Your task to perform on an android device: manage bookmarks in the chrome app Image 0: 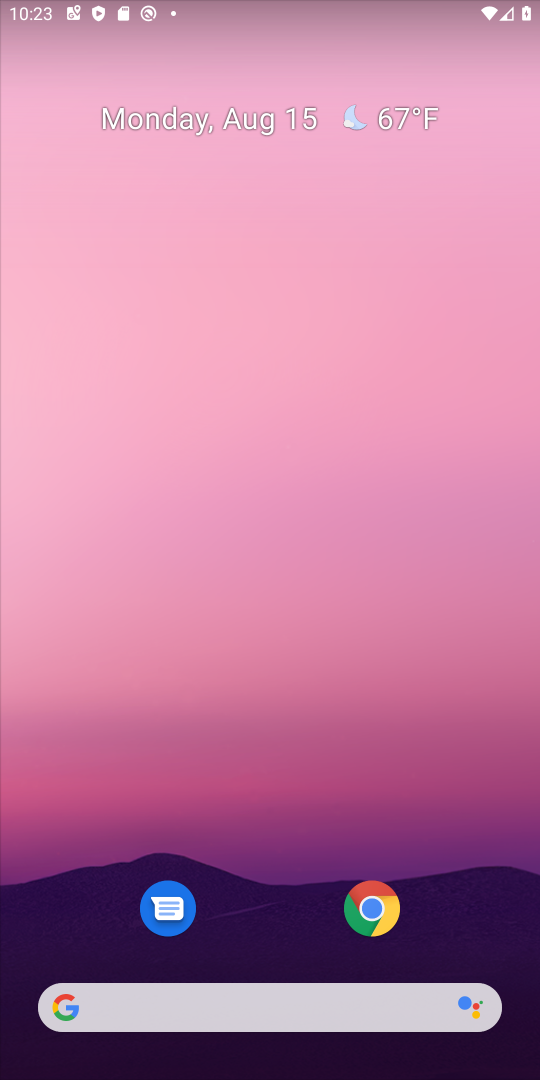
Step 0: click (388, 902)
Your task to perform on an android device: manage bookmarks in the chrome app Image 1: 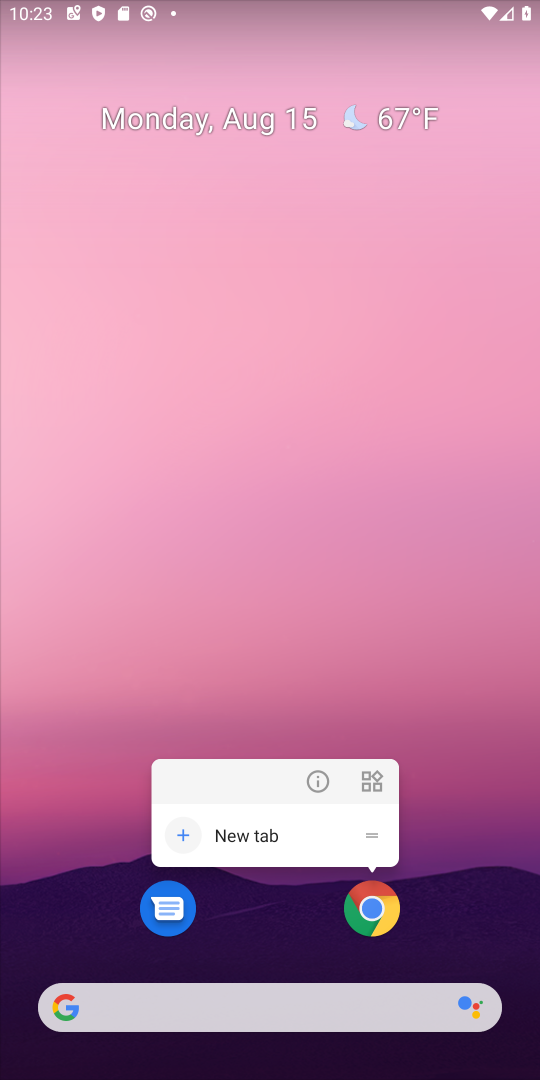
Step 1: click (388, 902)
Your task to perform on an android device: manage bookmarks in the chrome app Image 2: 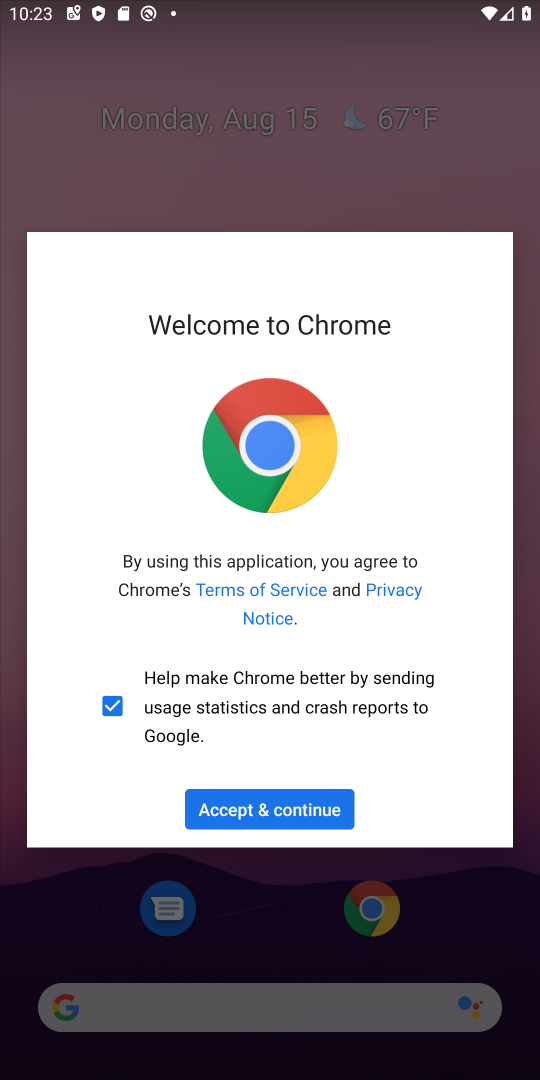
Step 2: click (289, 793)
Your task to perform on an android device: manage bookmarks in the chrome app Image 3: 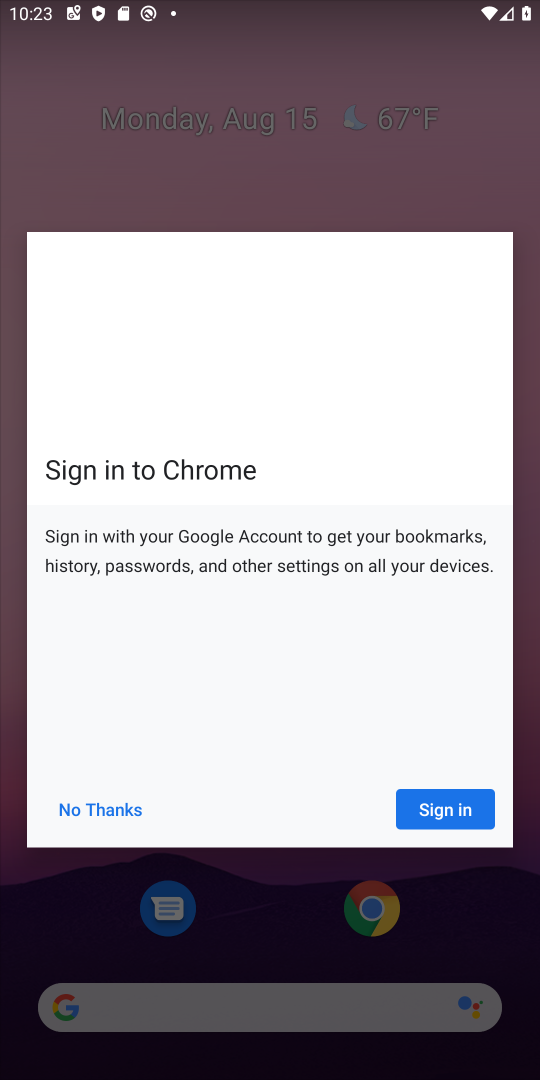
Step 3: click (269, 803)
Your task to perform on an android device: manage bookmarks in the chrome app Image 4: 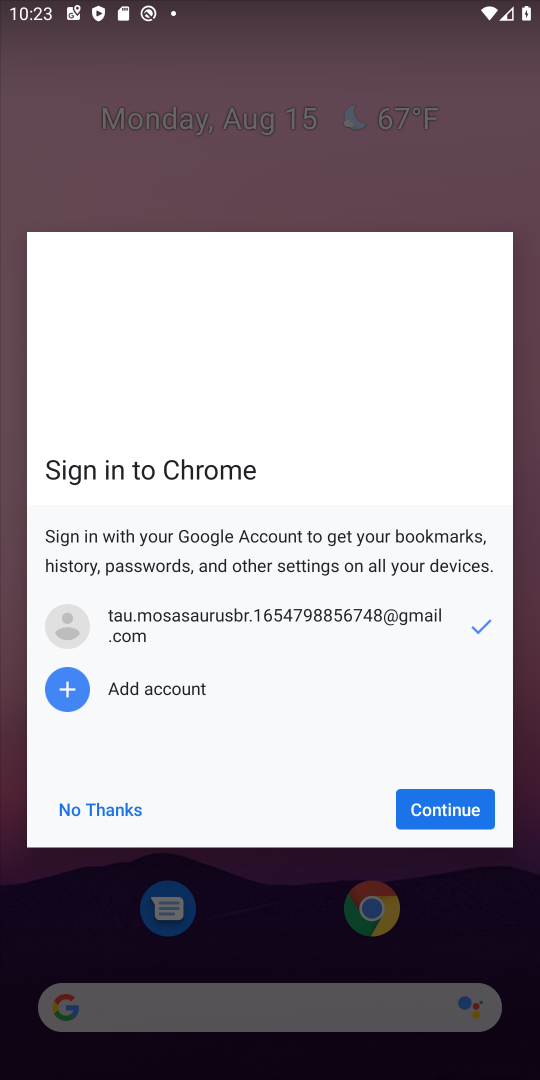
Step 4: click (478, 802)
Your task to perform on an android device: manage bookmarks in the chrome app Image 5: 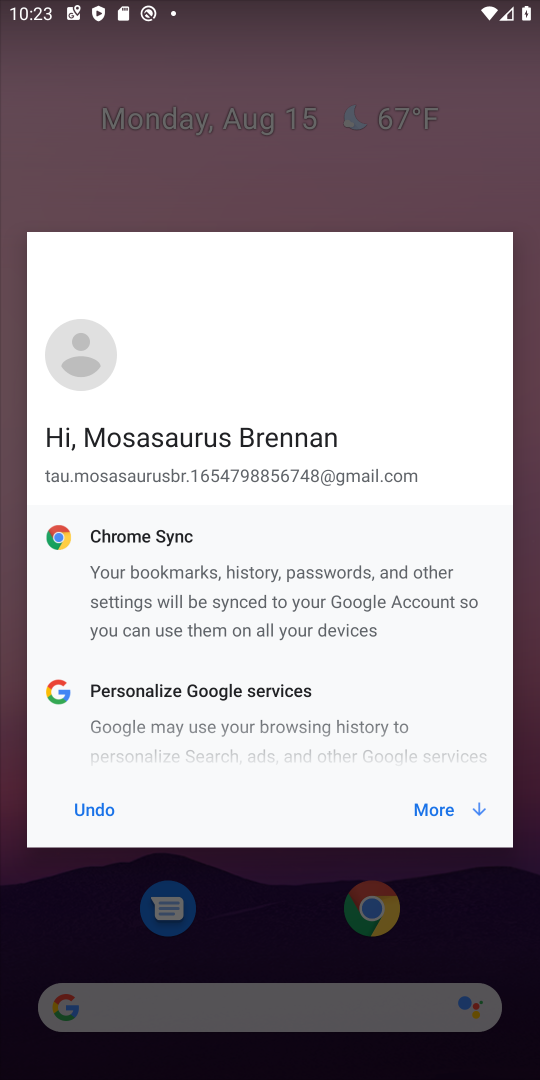
Step 5: click (426, 813)
Your task to perform on an android device: manage bookmarks in the chrome app Image 6: 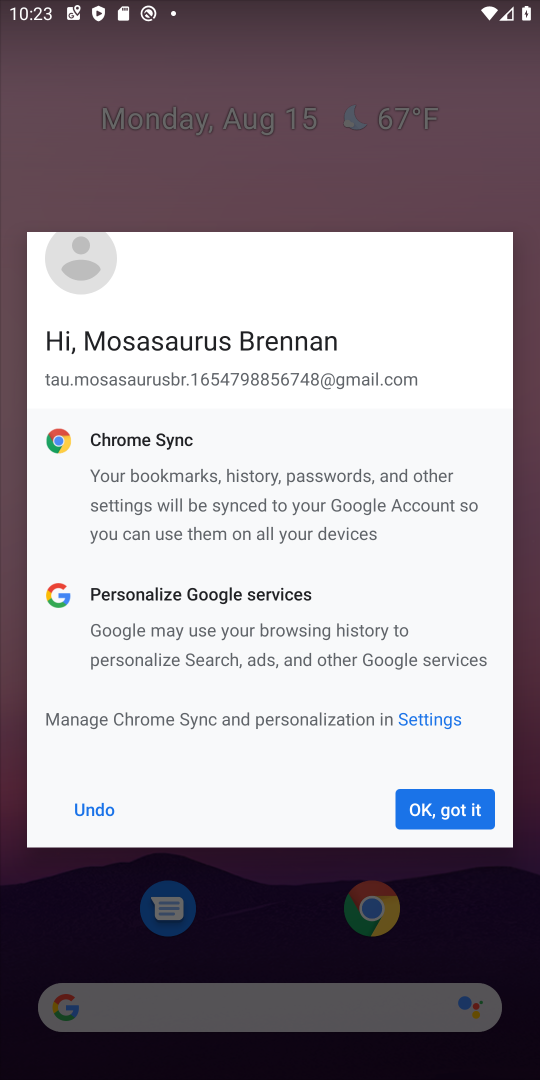
Step 6: click (426, 813)
Your task to perform on an android device: manage bookmarks in the chrome app Image 7: 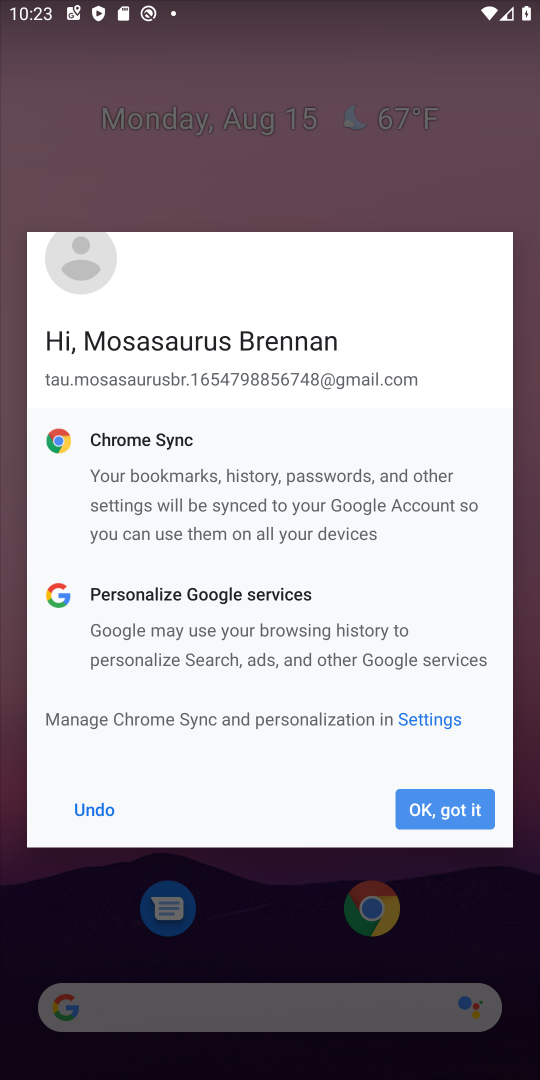
Step 7: click (426, 813)
Your task to perform on an android device: manage bookmarks in the chrome app Image 8: 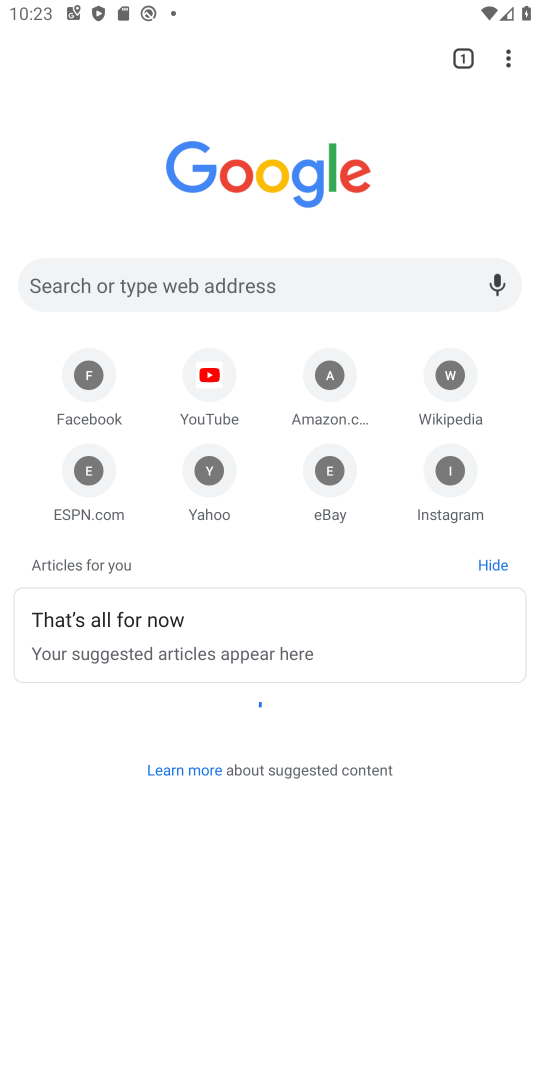
Step 8: click (512, 54)
Your task to perform on an android device: manage bookmarks in the chrome app Image 9: 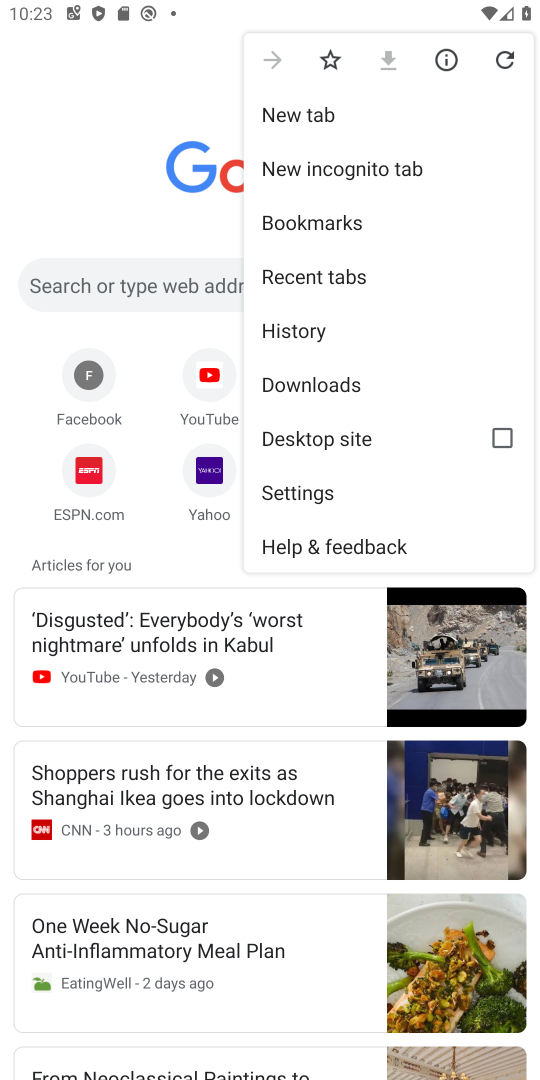
Step 9: click (300, 232)
Your task to perform on an android device: manage bookmarks in the chrome app Image 10: 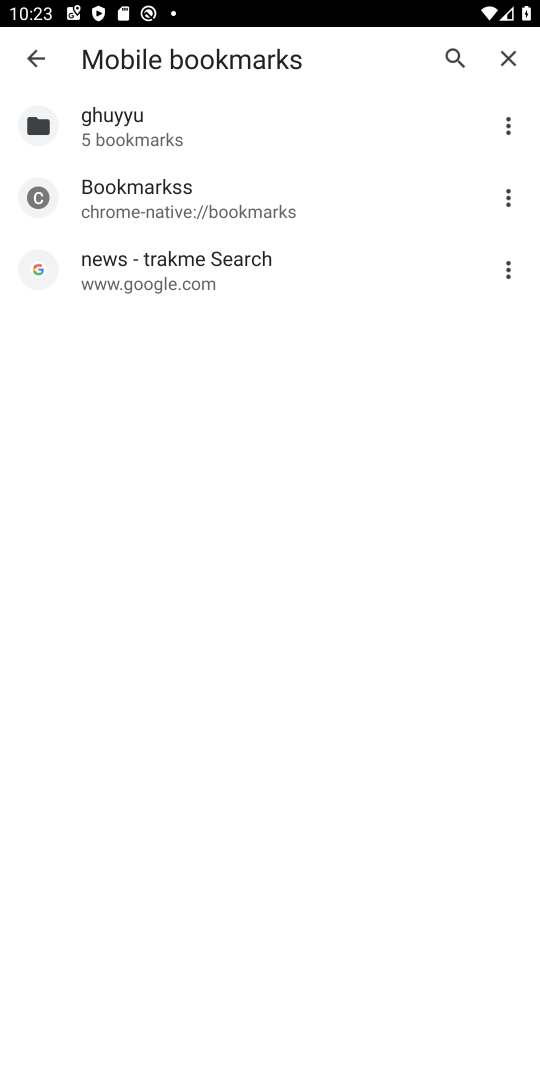
Step 10: click (300, 232)
Your task to perform on an android device: manage bookmarks in the chrome app Image 11: 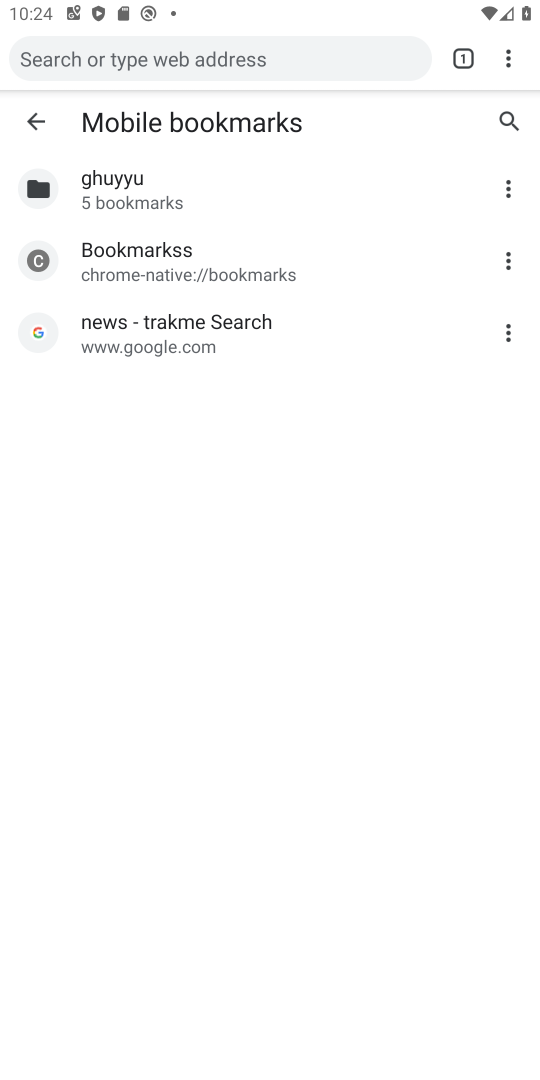
Step 11: click (221, 253)
Your task to perform on an android device: manage bookmarks in the chrome app Image 12: 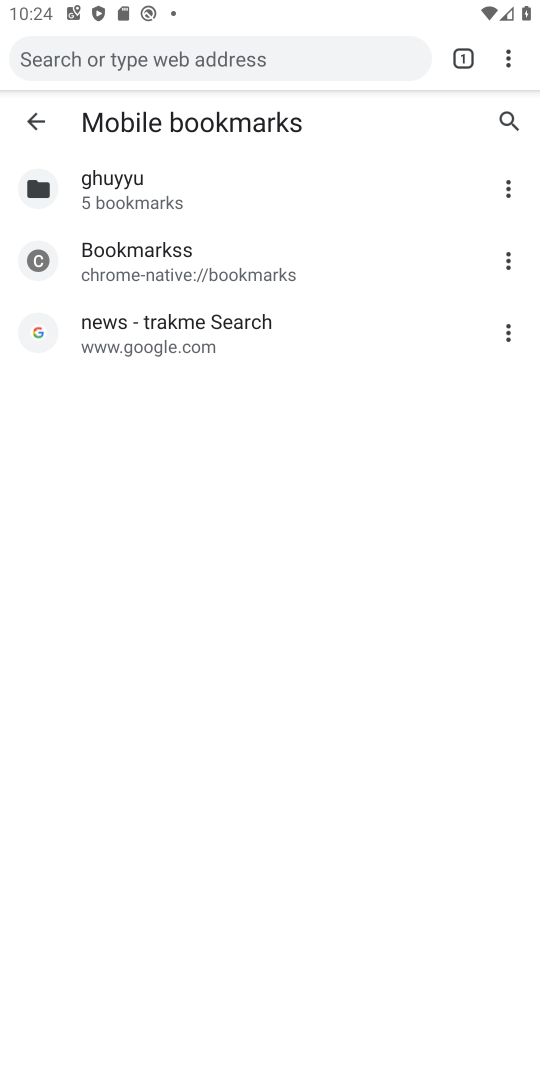
Step 12: click (209, 259)
Your task to perform on an android device: manage bookmarks in the chrome app Image 13: 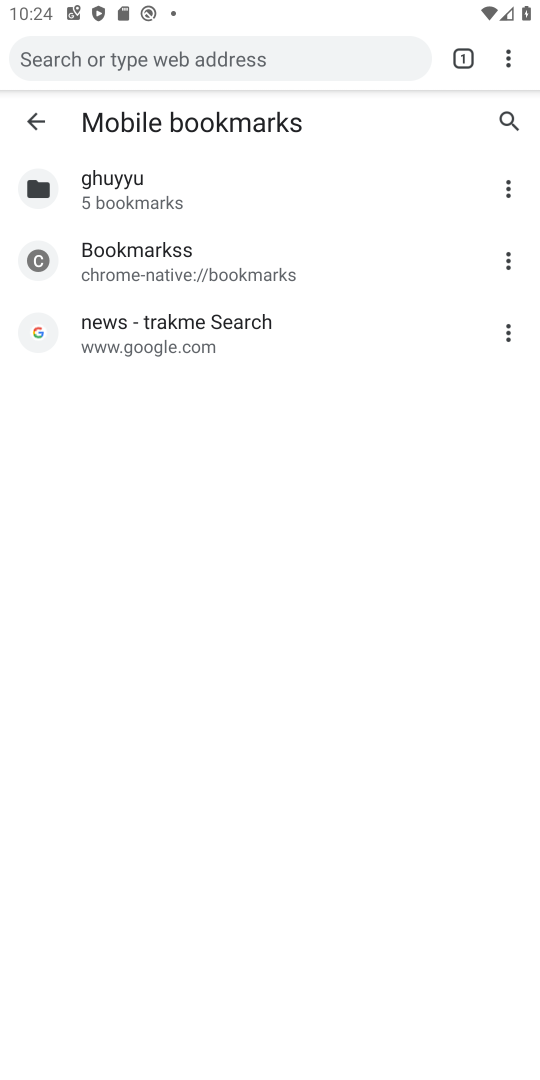
Step 13: click (139, 199)
Your task to perform on an android device: manage bookmarks in the chrome app Image 14: 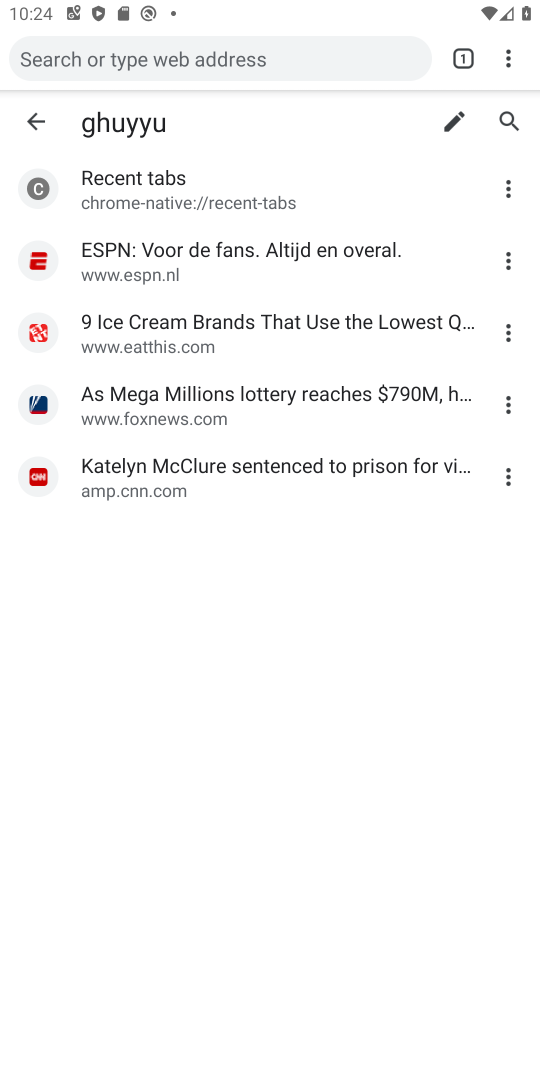
Step 14: click (515, 252)
Your task to perform on an android device: manage bookmarks in the chrome app Image 15: 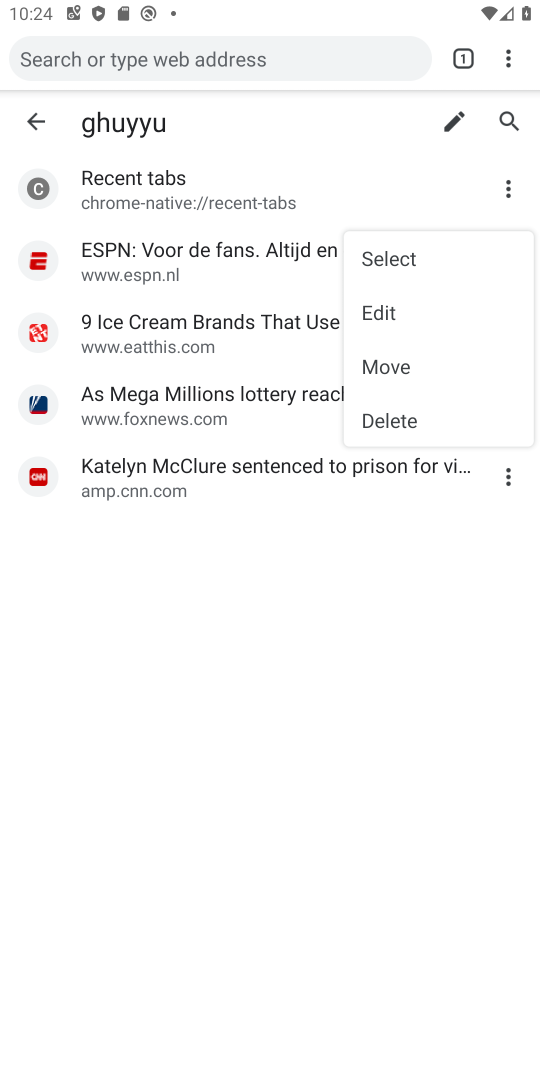
Step 15: click (360, 426)
Your task to perform on an android device: manage bookmarks in the chrome app Image 16: 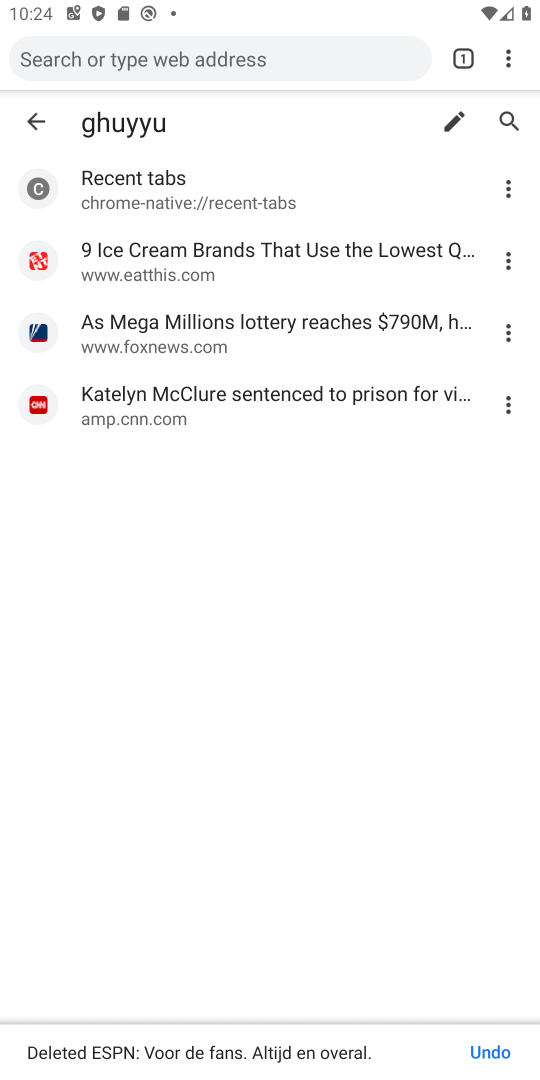
Step 16: task complete